Your task to perform on an android device: Open Google Maps and go to "Timeline" Image 0: 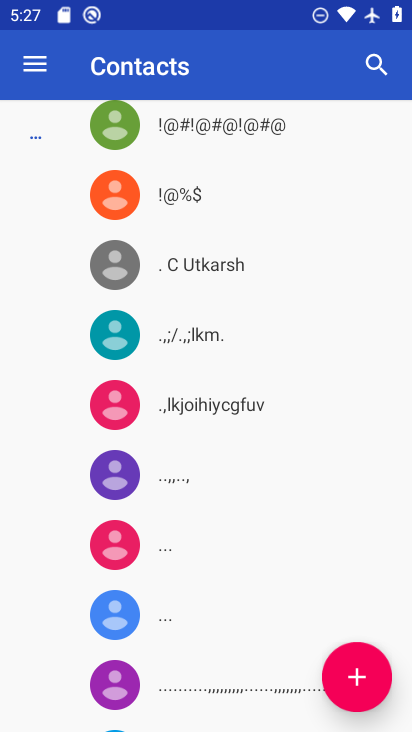
Step 0: press back button
Your task to perform on an android device: Open Google Maps and go to "Timeline" Image 1: 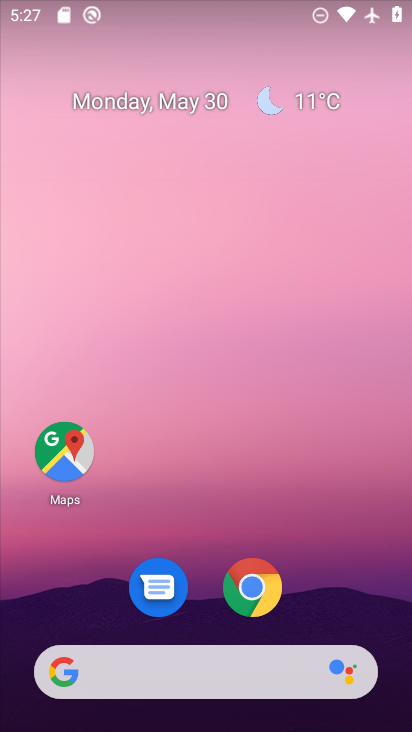
Step 1: drag from (342, 607) to (305, 84)
Your task to perform on an android device: Open Google Maps and go to "Timeline" Image 2: 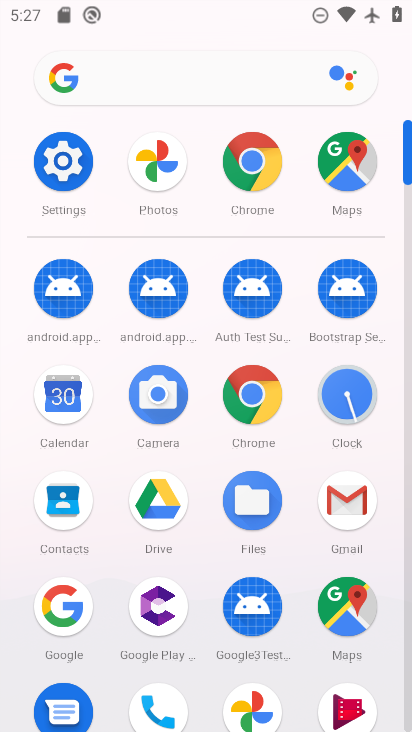
Step 2: click (341, 160)
Your task to perform on an android device: Open Google Maps and go to "Timeline" Image 3: 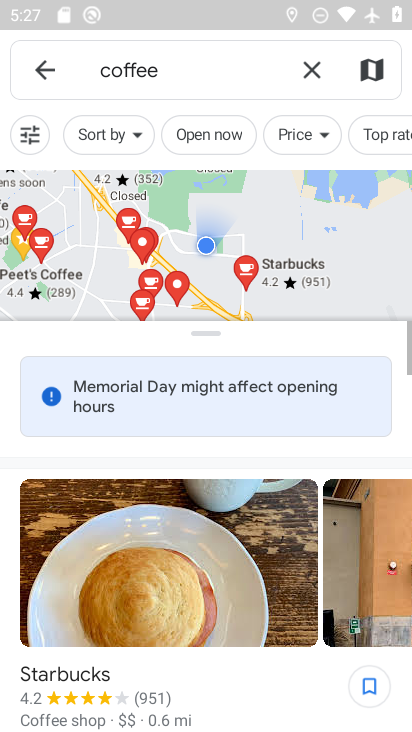
Step 3: click (32, 63)
Your task to perform on an android device: Open Google Maps and go to "Timeline" Image 4: 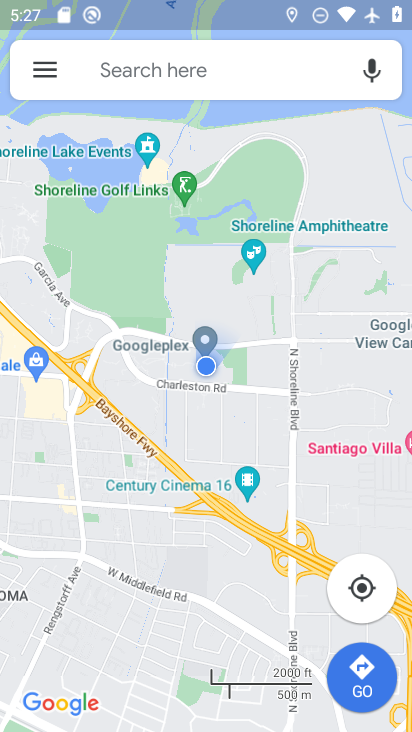
Step 4: click (43, 64)
Your task to perform on an android device: Open Google Maps and go to "Timeline" Image 5: 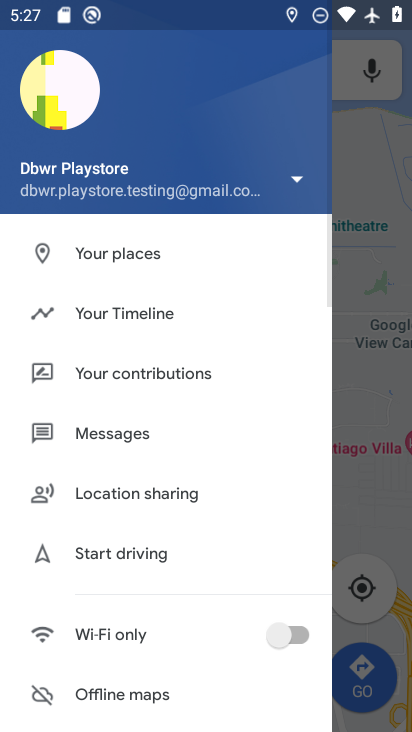
Step 5: click (140, 309)
Your task to perform on an android device: Open Google Maps and go to "Timeline" Image 6: 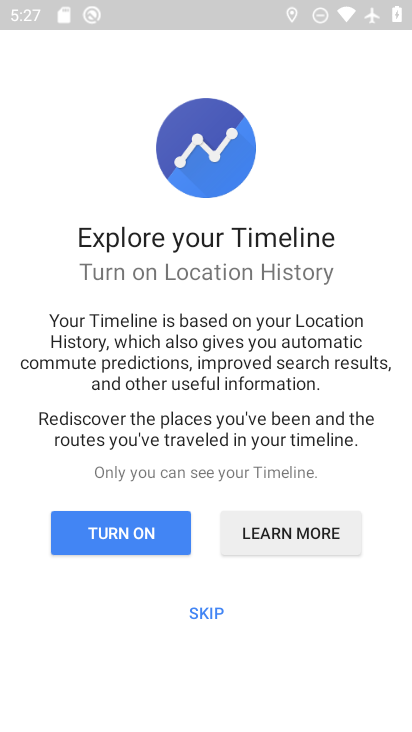
Step 6: click (141, 541)
Your task to perform on an android device: Open Google Maps and go to "Timeline" Image 7: 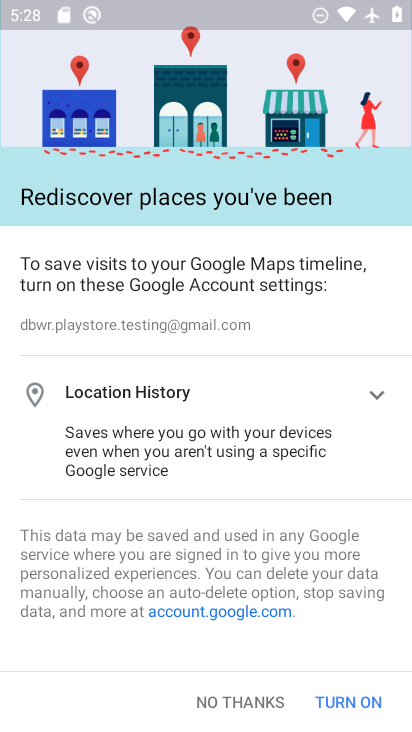
Step 7: click (353, 707)
Your task to perform on an android device: Open Google Maps and go to "Timeline" Image 8: 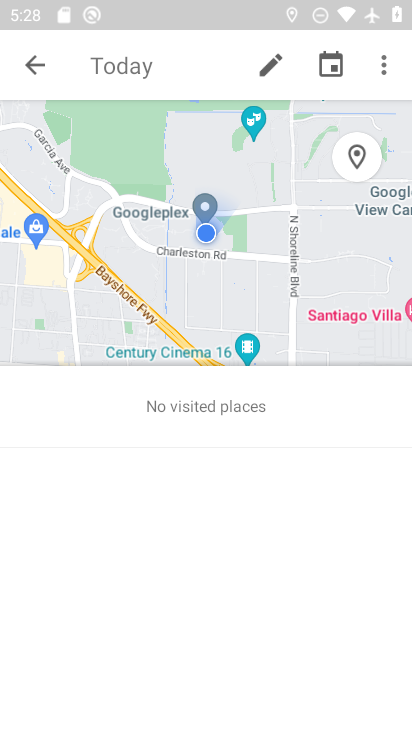
Step 8: task complete